Your task to perform on an android device: toggle notifications settings in the gmail app Image 0: 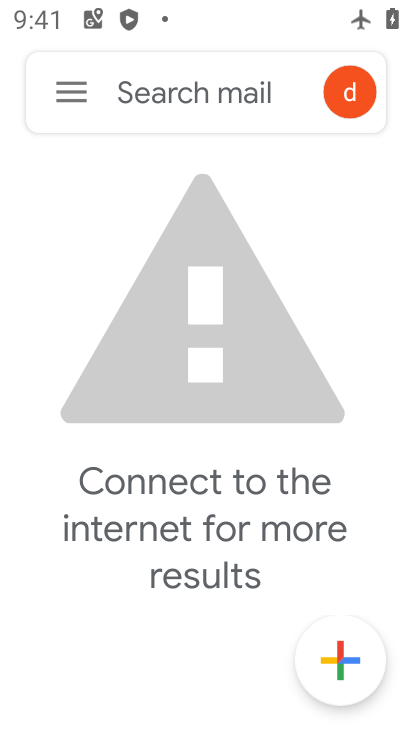
Step 0: press home button
Your task to perform on an android device: toggle notifications settings in the gmail app Image 1: 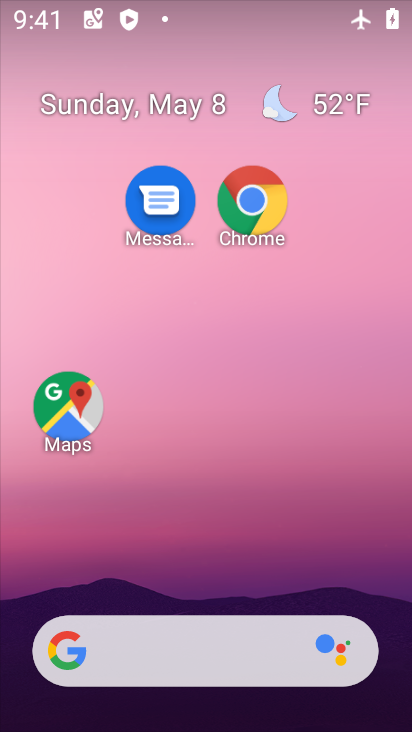
Step 1: drag from (238, 615) to (403, 441)
Your task to perform on an android device: toggle notifications settings in the gmail app Image 2: 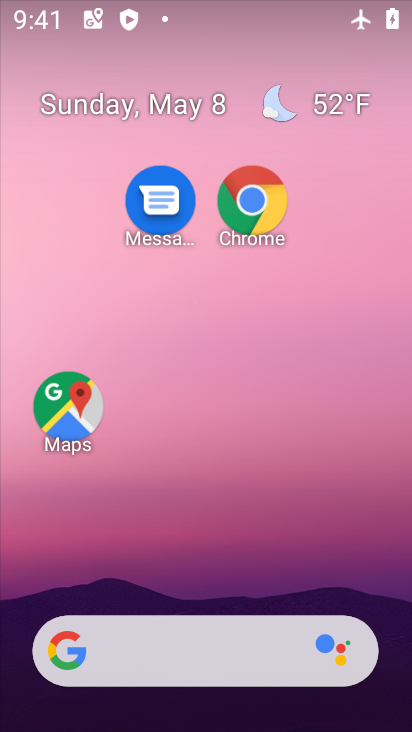
Step 2: click (361, 468)
Your task to perform on an android device: toggle notifications settings in the gmail app Image 3: 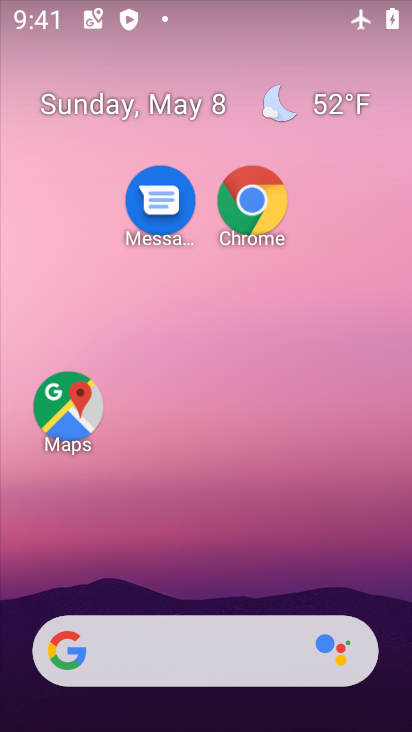
Step 3: drag from (226, 590) to (187, 17)
Your task to perform on an android device: toggle notifications settings in the gmail app Image 4: 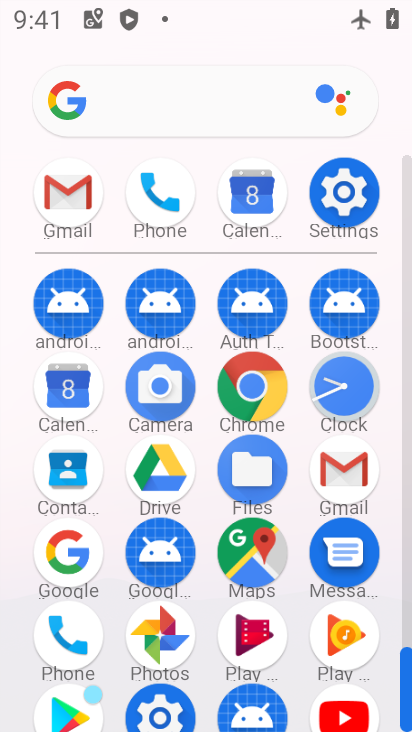
Step 4: click (344, 472)
Your task to perform on an android device: toggle notifications settings in the gmail app Image 5: 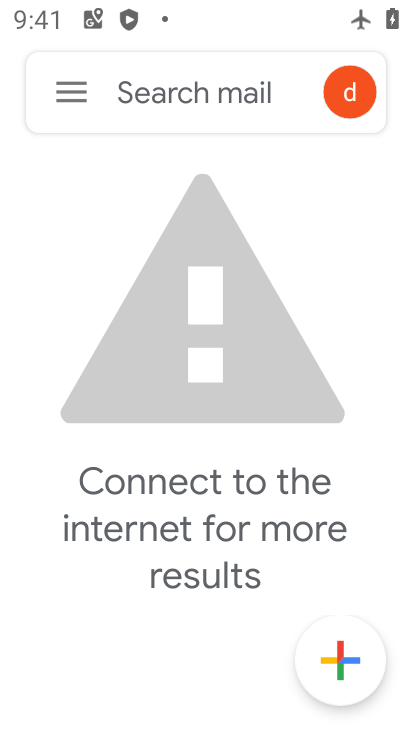
Step 5: click (57, 92)
Your task to perform on an android device: toggle notifications settings in the gmail app Image 6: 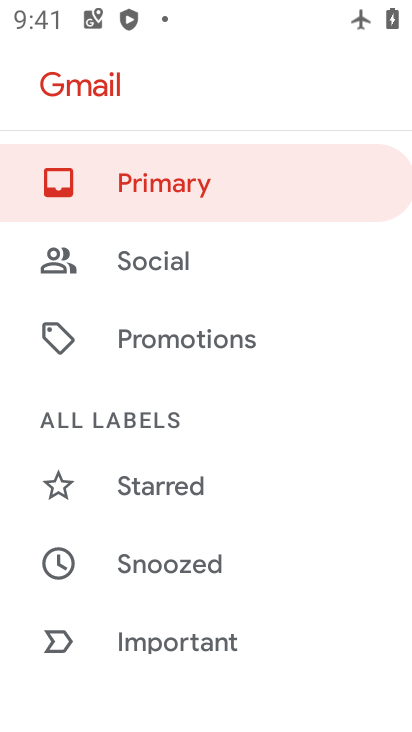
Step 6: drag from (239, 605) to (209, 83)
Your task to perform on an android device: toggle notifications settings in the gmail app Image 7: 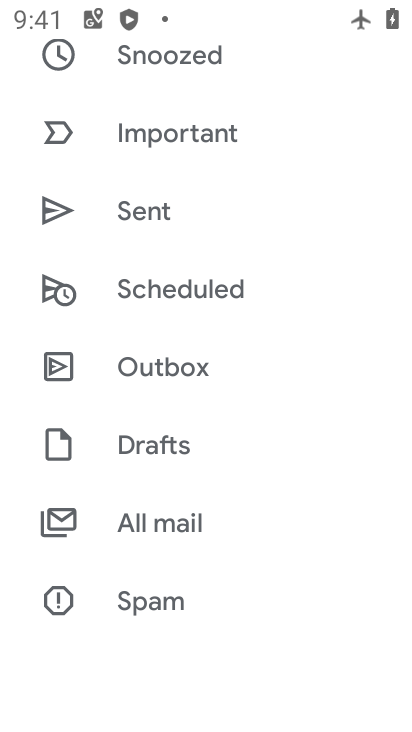
Step 7: drag from (203, 664) to (148, 0)
Your task to perform on an android device: toggle notifications settings in the gmail app Image 8: 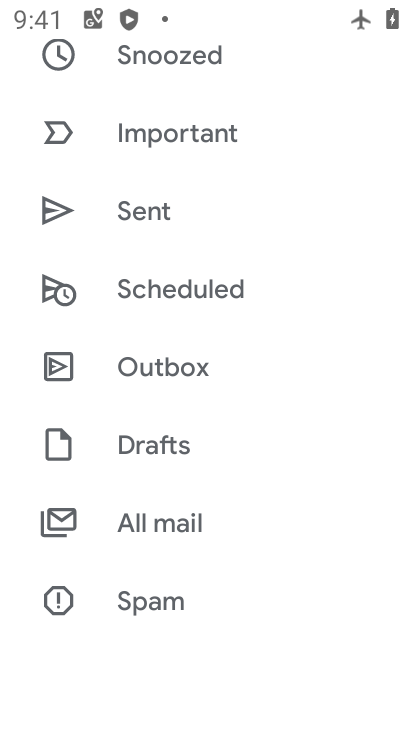
Step 8: drag from (174, 580) to (132, 49)
Your task to perform on an android device: toggle notifications settings in the gmail app Image 9: 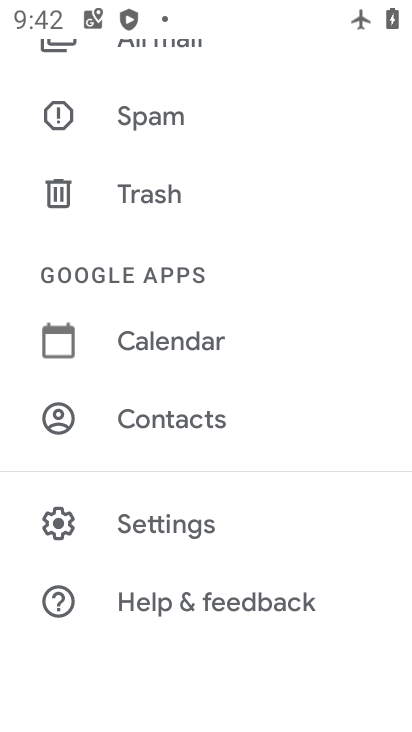
Step 9: click (128, 522)
Your task to perform on an android device: toggle notifications settings in the gmail app Image 10: 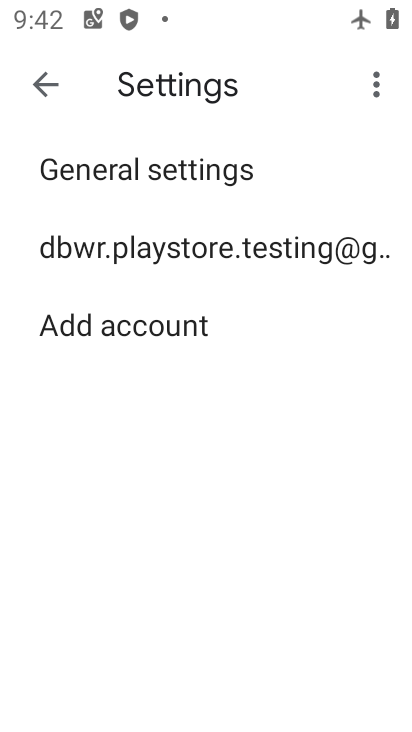
Step 10: drag from (121, 250) to (129, 132)
Your task to perform on an android device: toggle notifications settings in the gmail app Image 11: 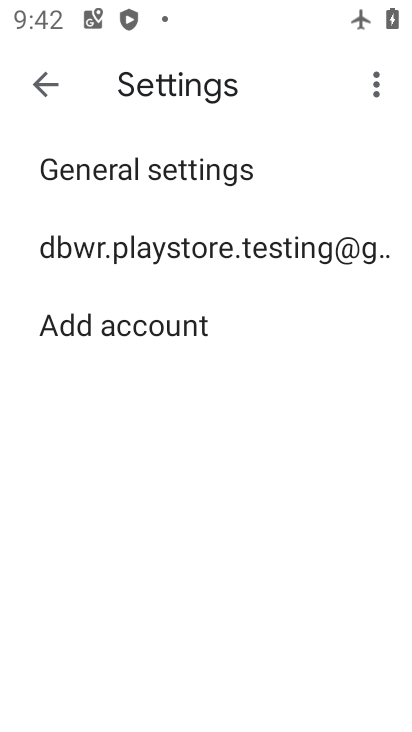
Step 11: click (129, 179)
Your task to perform on an android device: toggle notifications settings in the gmail app Image 12: 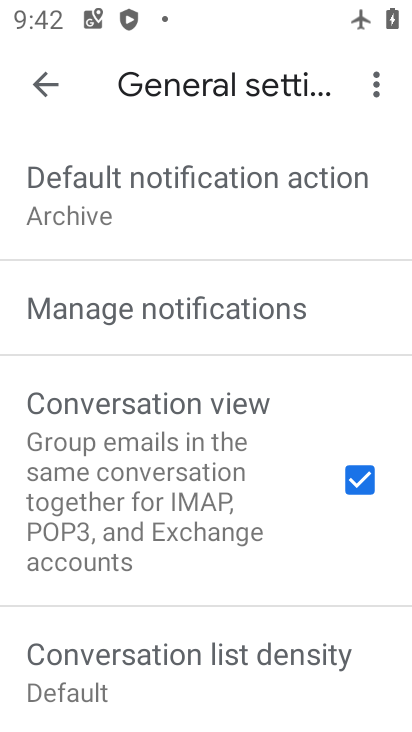
Step 12: click (207, 307)
Your task to perform on an android device: toggle notifications settings in the gmail app Image 13: 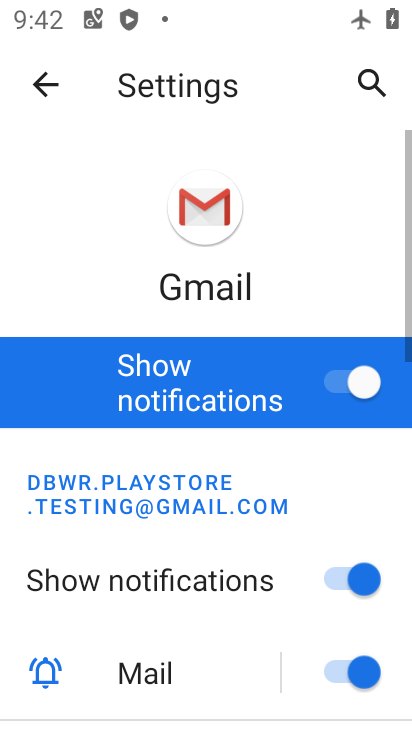
Step 13: click (345, 372)
Your task to perform on an android device: toggle notifications settings in the gmail app Image 14: 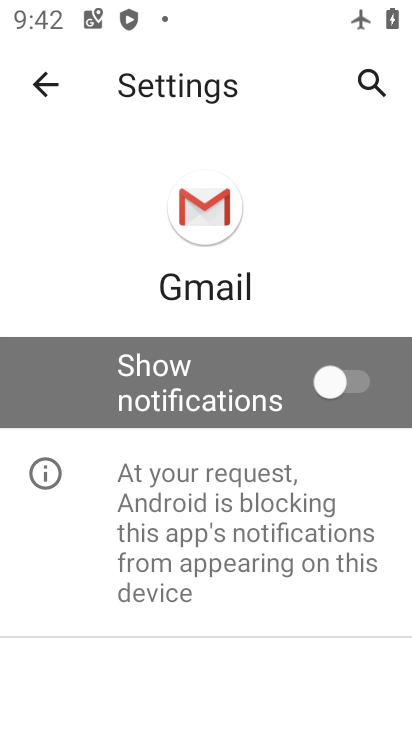
Step 14: task complete